Your task to perform on an android device: change alarm snooze length Image 0: 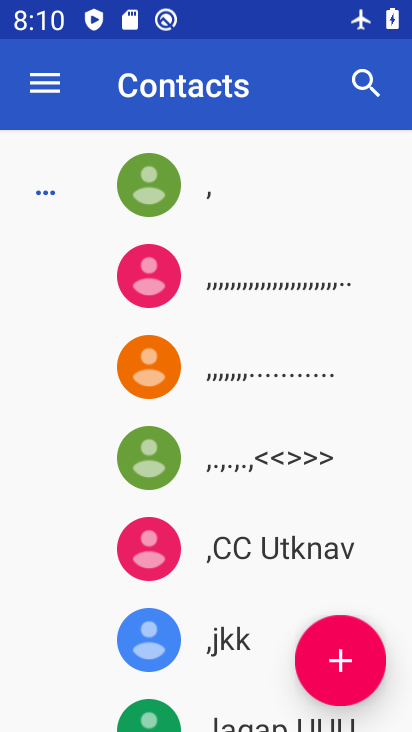
Step 0: press home button
Your task to perform on an android device: change alarm snooze length Image 1: 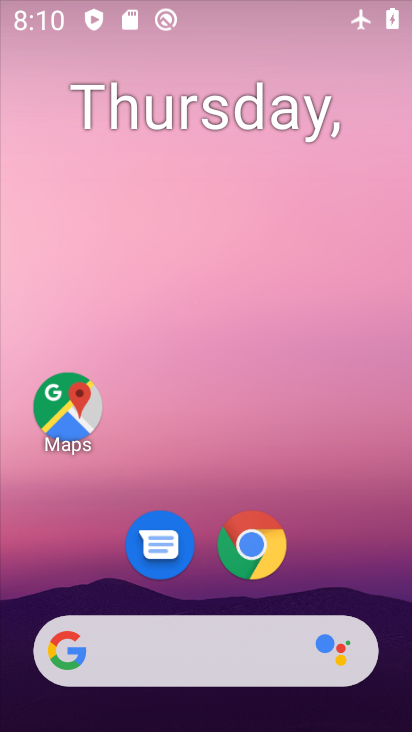
Step 1: drag from (187, 673) to (248, 216)
Your task to perform on an android device: change alarm snooze length Image 2: 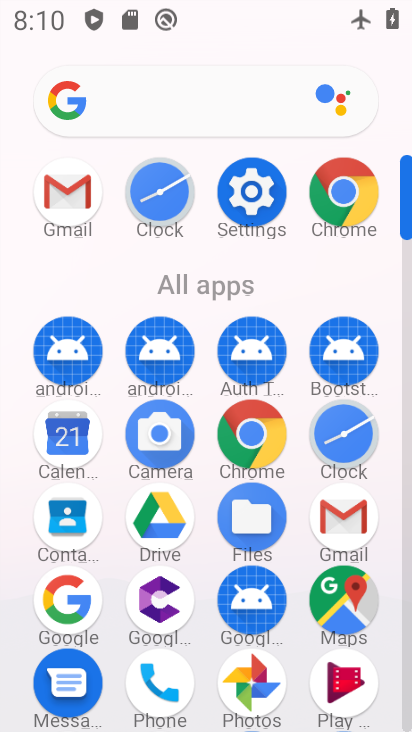
Step 2: click (160, 184)
Your task to perform on an android device: change alarm snooze length Image 3: 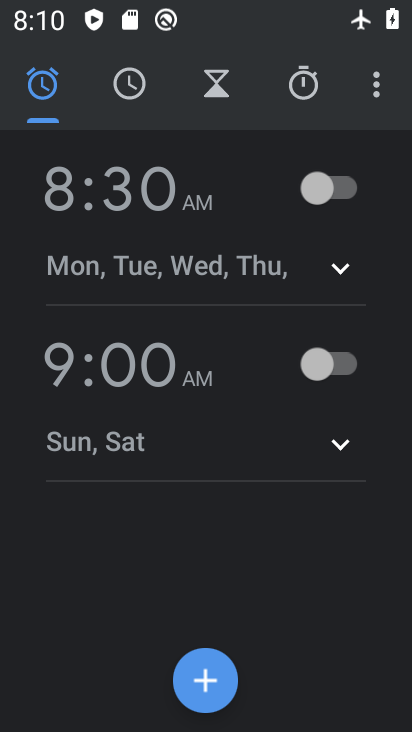
Step 3: click (355, 82)
Your task to perform on an android device: change alarm snooze length Image 4: 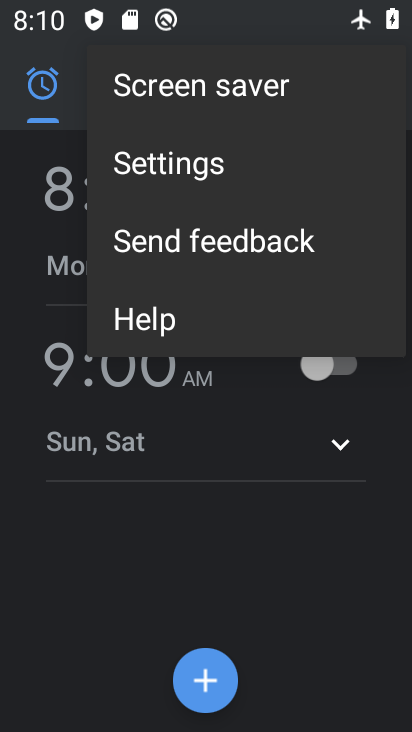
Step 4: click (241, 171)
Your task to perform on an android device: change alarm snooze length Image 5: 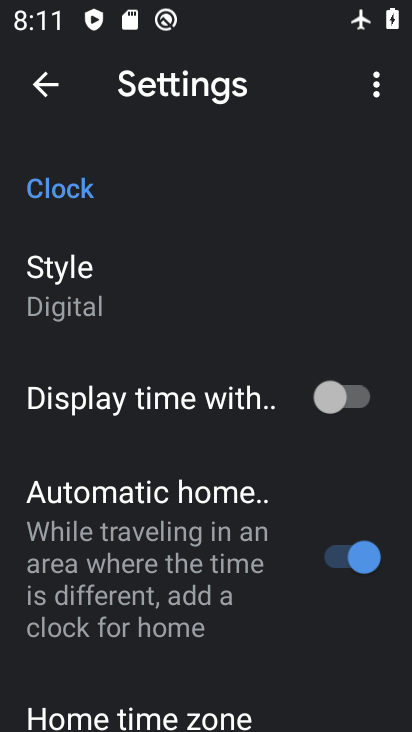
Step 5: drag from (158, 541) to (258, 95)
Your task to perform on an android device: change alarm snooze length Image 6: 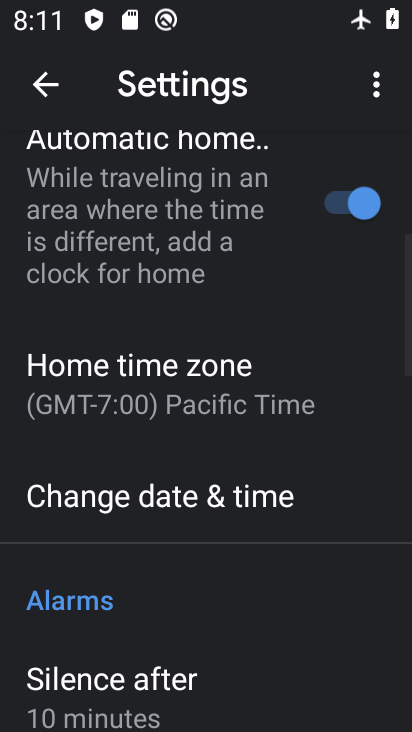
Step 6: drag from (132, 612) to (227, 129)
Your task to perform on an android device: change alarm snooze length Image 7: 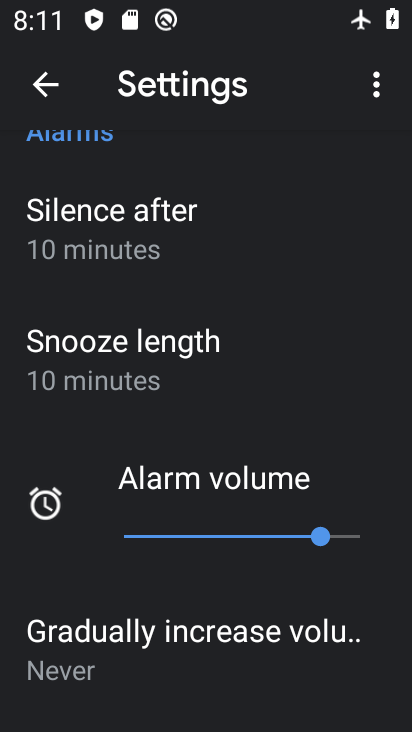
Step 7: click (120, 359)
Your task to perform on an android device: change alarm snooze length Image 8: 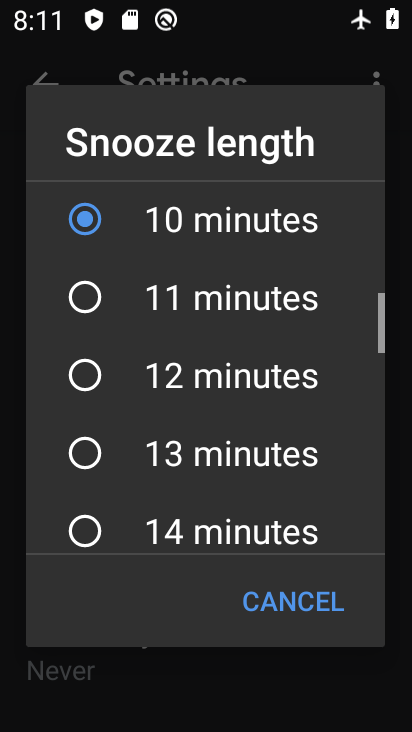
Step 8: drag from (141, 505) to (238, 165)
Your task to perform on an android device: change alarm snooze length Image 9: 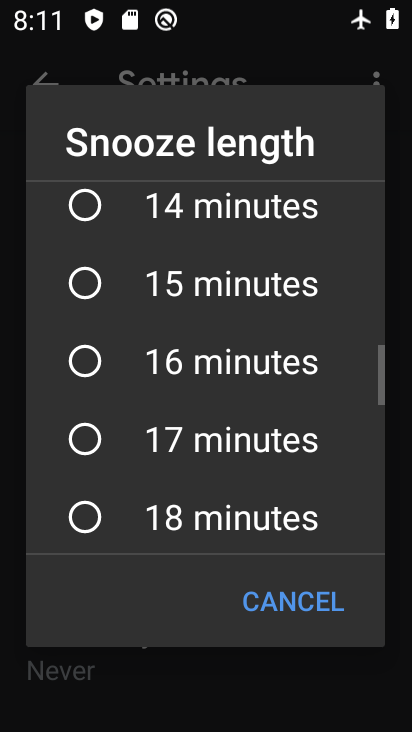
Step 9: drag from (182, 506) to (239, 220)
Your task to perform on an android device: change alarm snooze length Image 10: 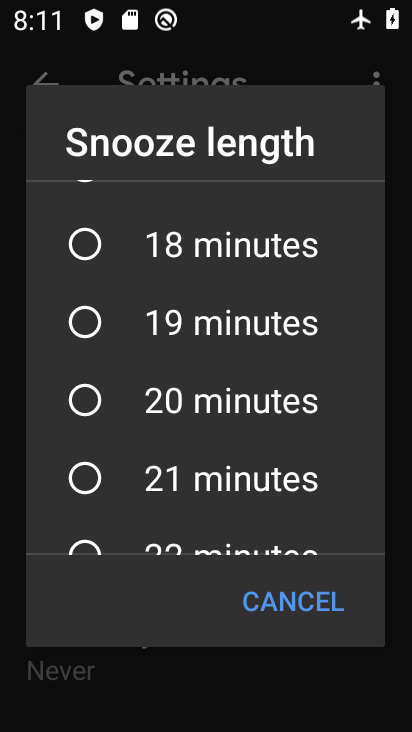
Step 10: click (158, 484)
Your task to perform on an android device: change alarm snooze length Image 11: 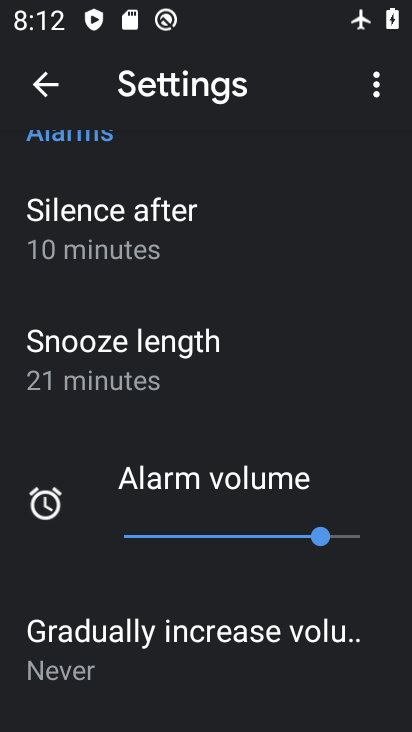
Step 11: click (171, 350)
Your task to perform on an android device: change alarm snooze length Image 12: 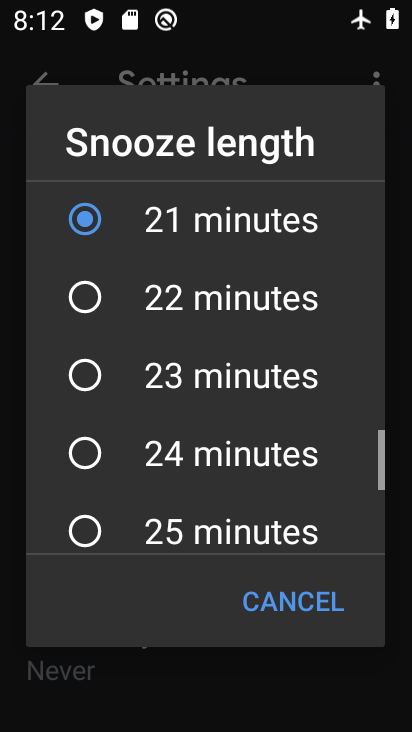
Step 12: drag from (164, 532) to (188, 418)
Your task to perform on an android device: change alarm snooze length Image 13: 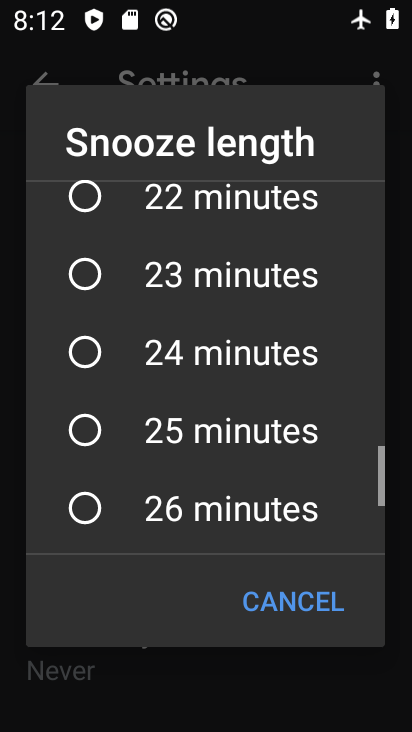
Step 13: click (177, 437)
Your task to perform on an android device: change alarm snooze length Image 14: 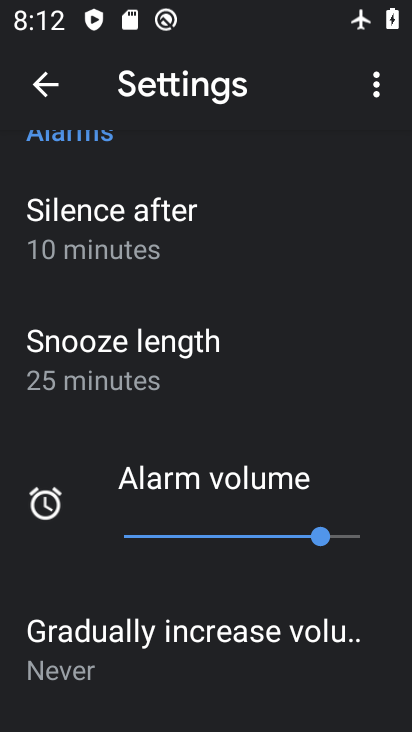
Step 14: task complete